Your task to perform on an android device: check out phone information Image 0: 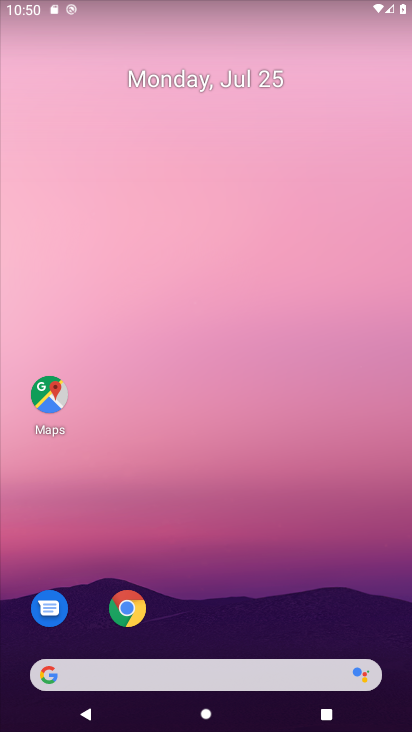
Step 0: drag from (231, 78) to (150, 30)
Your task to perform on an android device: check out phone information Image 1: 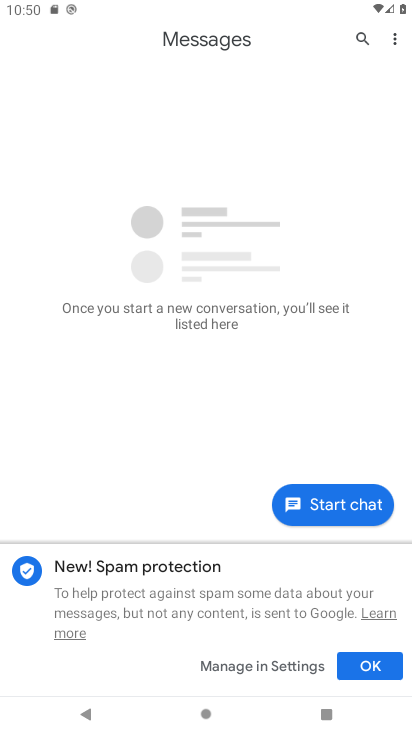
Step 1: drag from (242, 582) to (239, 16)
Your task to perform on an android device: check out phone information Image 2: 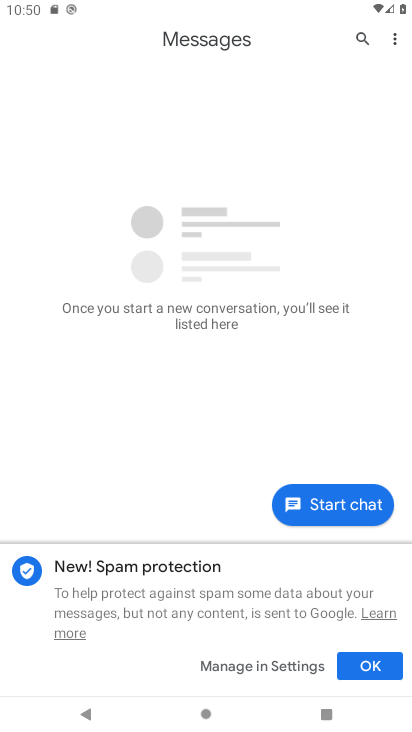
Step 2: drag from (239, 446) to (263, 58)
Your task to perform on an android device: check out phone information Image 3: 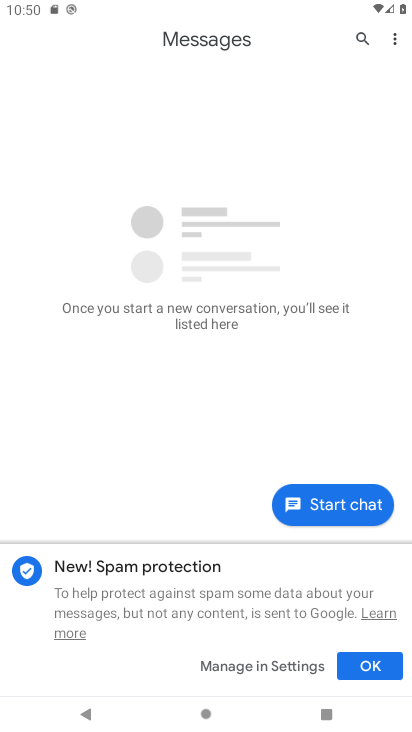
Step 3: press back button
Your task to perform on an android device: check out phone information Image 4: 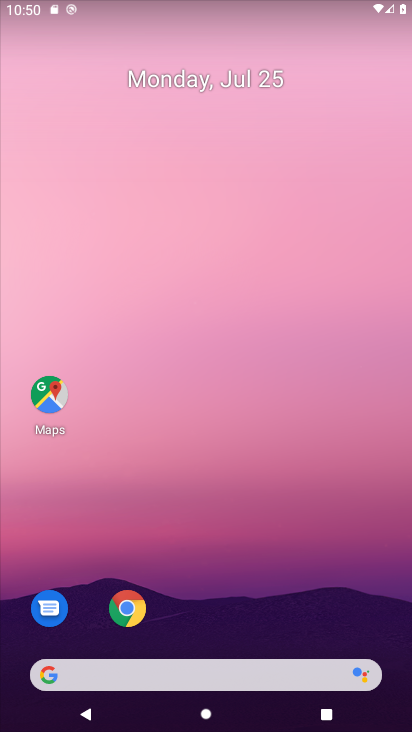
Step 4: drag from (260, 673) to (228, 266)
Your task to perform on an android device: check out phone information Image 5: 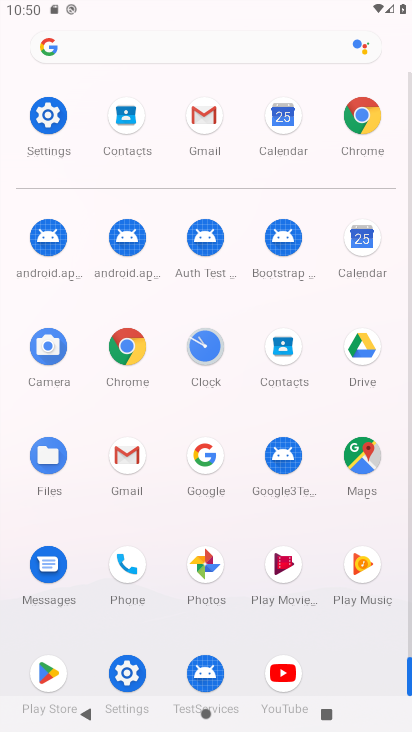
Step 5: click (54, 125)
Your task to perform on an android device: check out phone information Image 6: 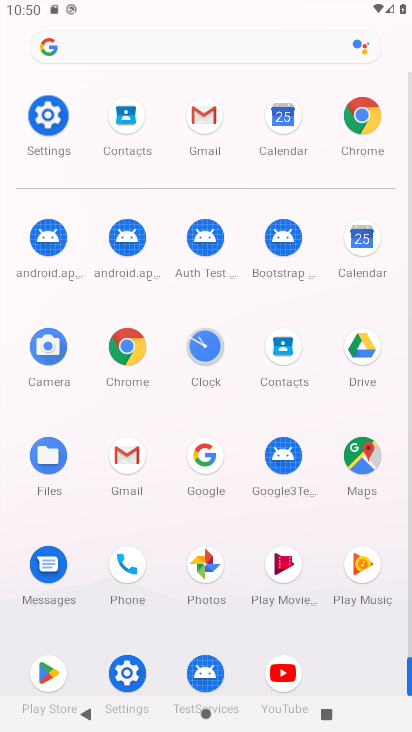
Step 6: click (53, 124)
Your task to perform on an android device: check out phone information Image 7: 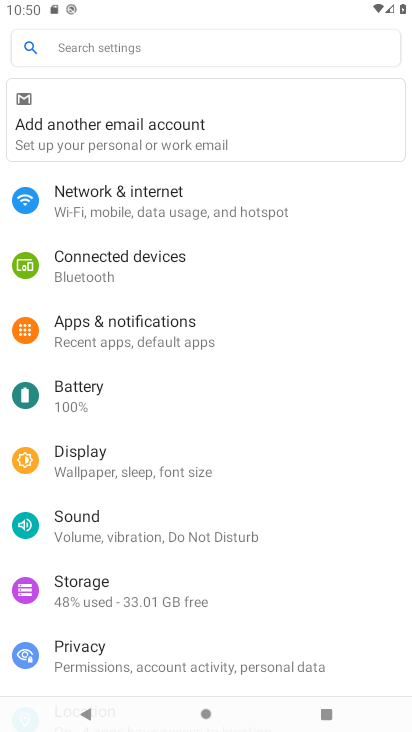
Step 7: drag from (165, 684) to (125, 321)
Your task to perform on an android device: check out phone information Image 8: 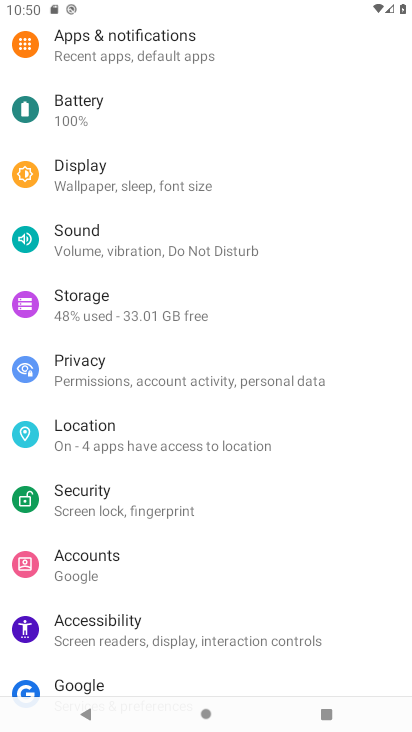
Step 8: drag from (174, 570) to (188, 223)
Your task to perform on an android device: check out phone information Image 9: 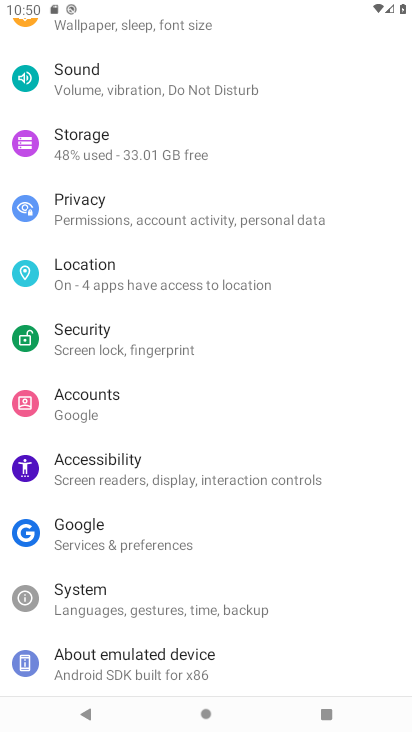
Step 9: drag from (177, 502) to (177, 133)
Your task to perform on an android device: check out phone information Image 10: 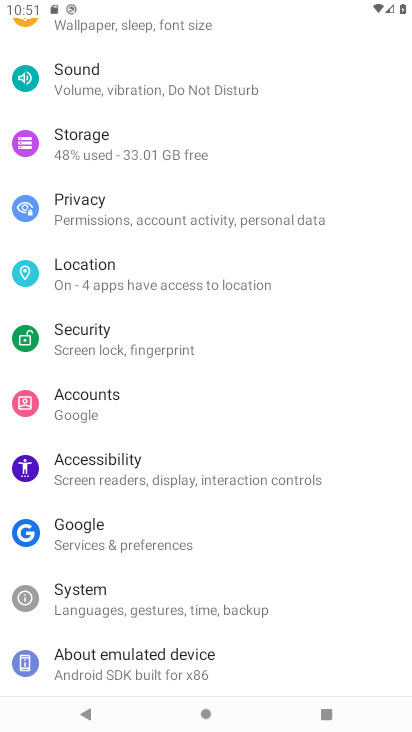
Step 10: click (121, 678)
Your task to perform on an android device: check out phone information Image 11: 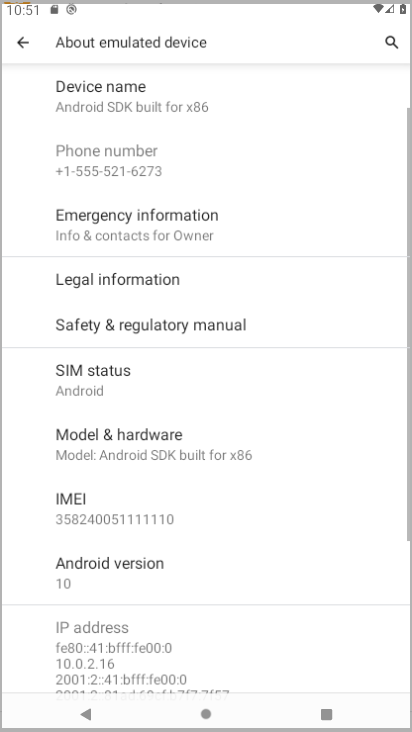
Step 11: click (119, 665)
Your task to perform on an android device: check out phone information Image 12: 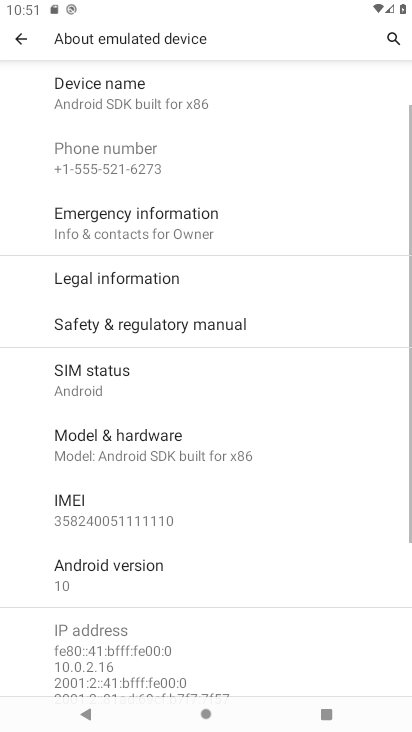
Step 12: task complete